Your task to perform on an android device: Go to battery settings Image 0: 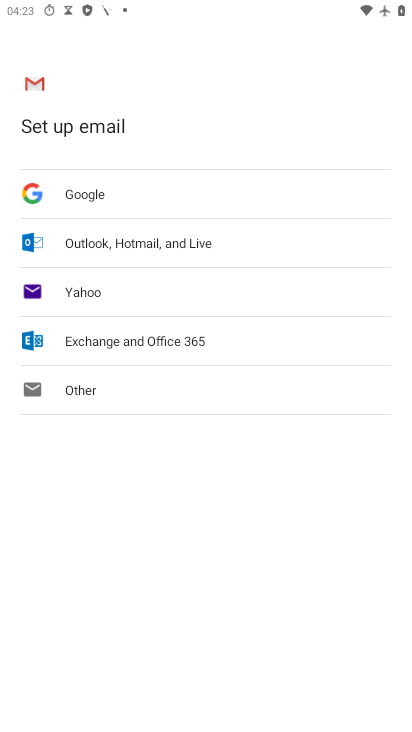
Step 0: press back button
Your task to perform on an android device: Go to battery settings Image 1: 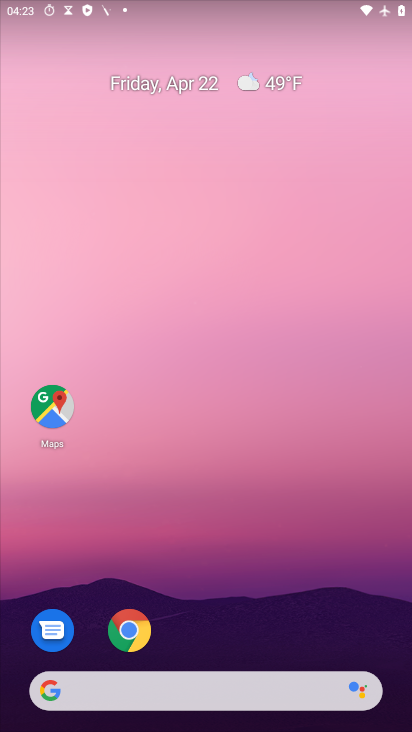
Step 1: drag from (281, 504) to (239, 68)
Your task to perform on an android device: Go to battery settings Image 2: 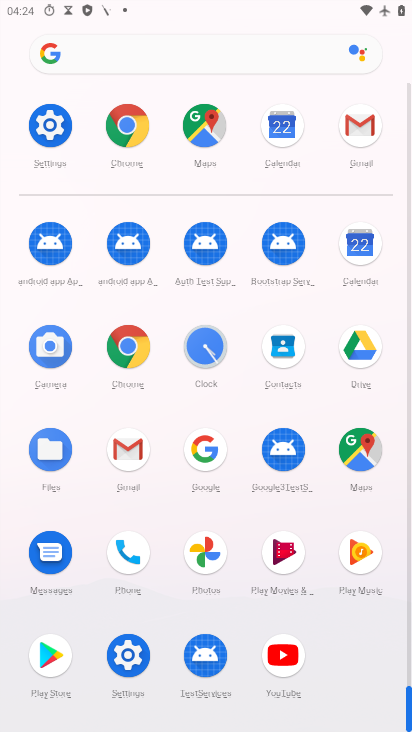
Step 2: drag from (14, 505) to (5, 306)
Your task to perform on an android device: Go to battery settings Image 3: 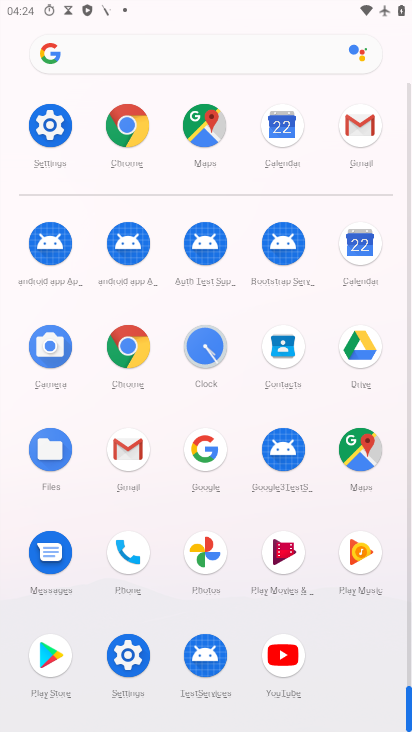
Step 3: click (130, 657)
Your task to perform on an android device: Go to battery settings Image 4: 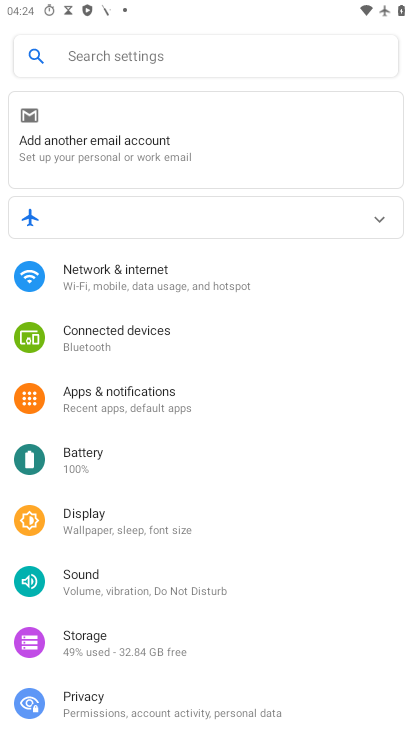
Step 4: click (108, 468)
Your task to perform on an android device: Go to battery settings Image 5: 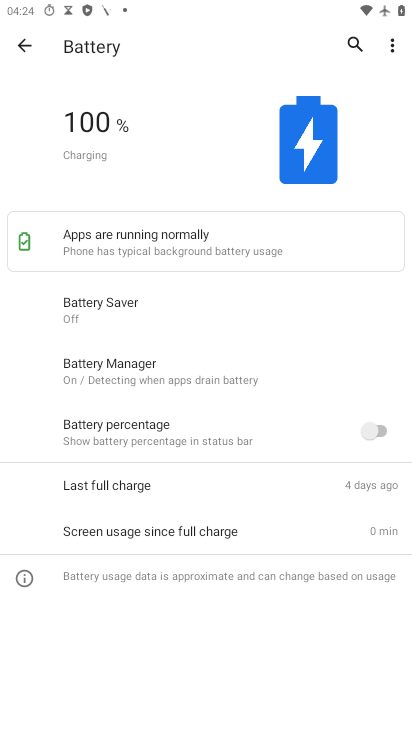
Step 5: task complete